Your task to perform on an android device: turn off javascript in the chrome app Image 0: 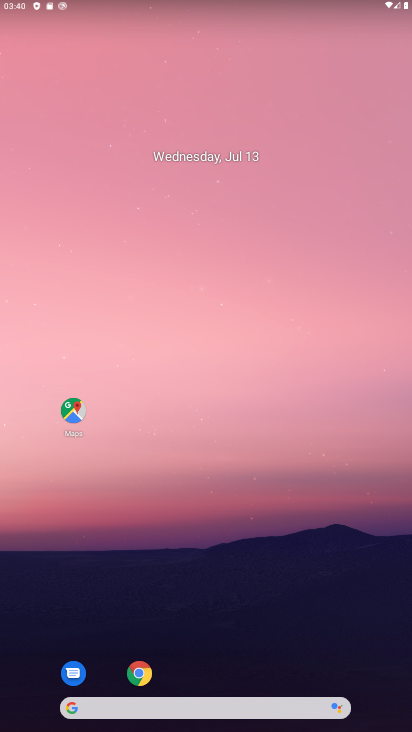
Step 0: drag from (285, 524) to (272, 46)
Your task to perform on an android device: turn off javascript in the chrome app Image 1: 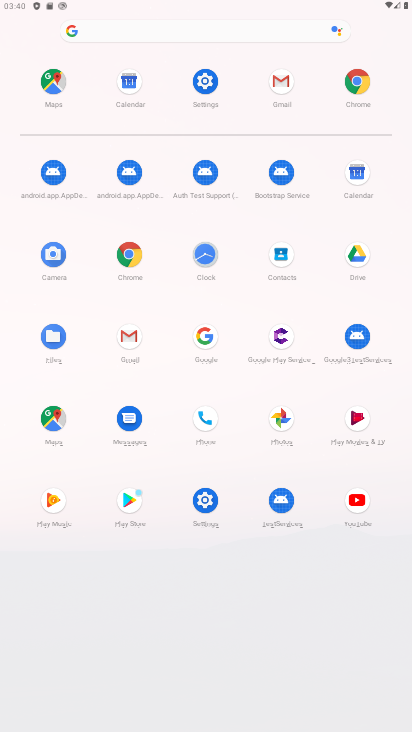
Step 1: click (123, 252)
Your task to perform on an android device: turn off javascript in the chrome app Image 2: 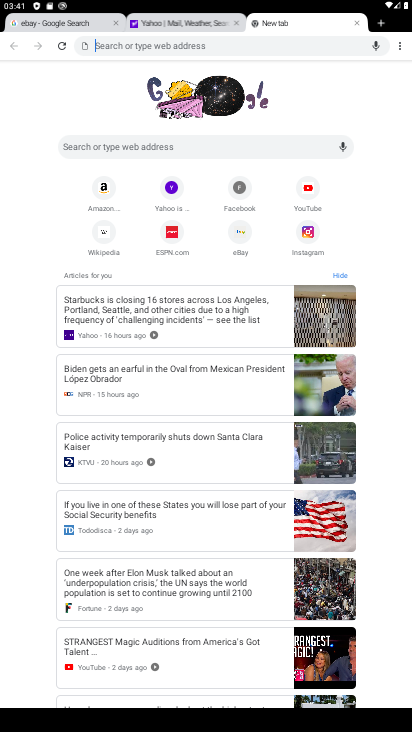
Step 2: drag from (394, 44) to (310, 244)
Your task to perform on an android device: turn off javascript in the chrome app Image 3: 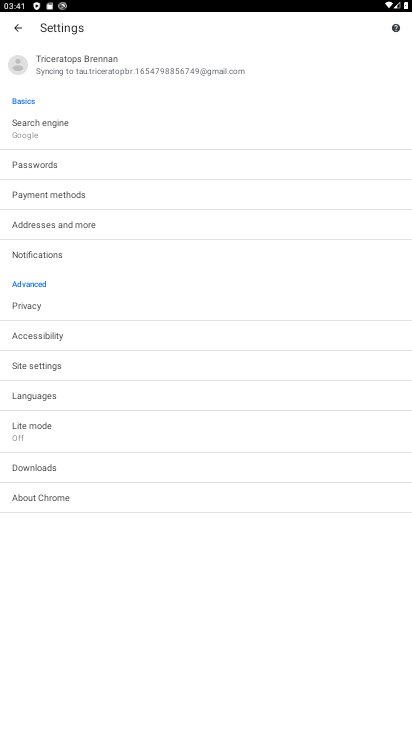
Step 3: click (41, 361)
Your task to perform on an android device: turn off javascript in the chrome app Image 4: 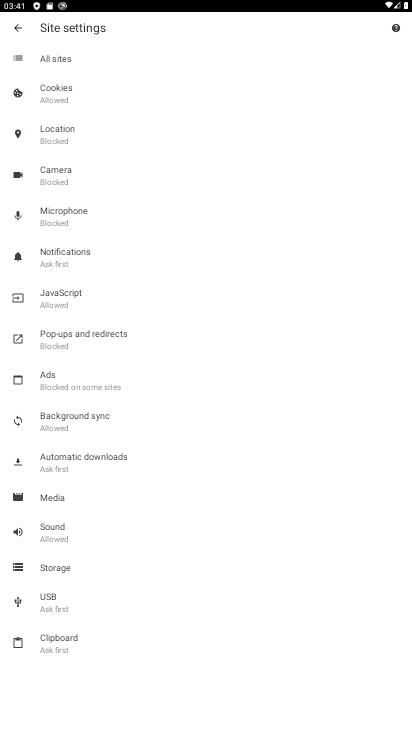
Step 4: click (73, 296)
Your task to perform on an android device: turn off javascript in the chrome app Image 5: 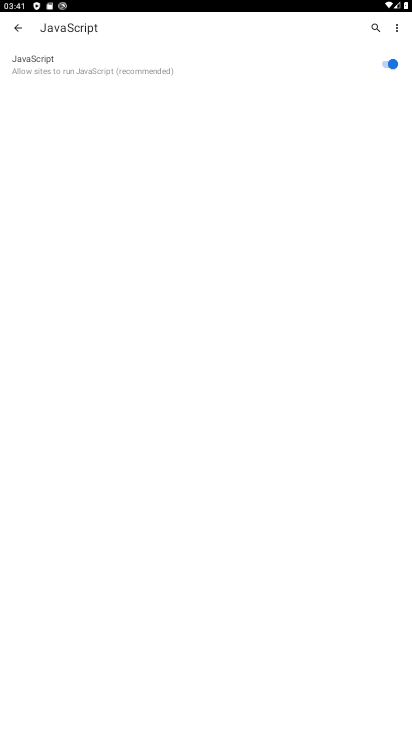
Step 5: click (385, 60)
Your task to perform on an android device: turn off javascript in the chrome app Image 6: 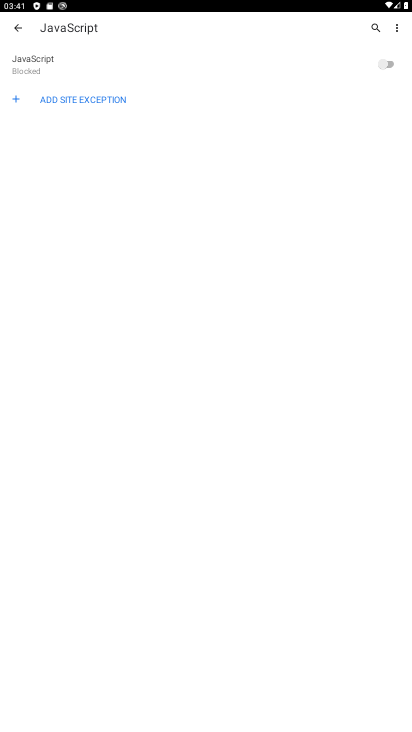
Step 6: task complete